Your task to perform on an android device: change the upload size in google photos Image 0: 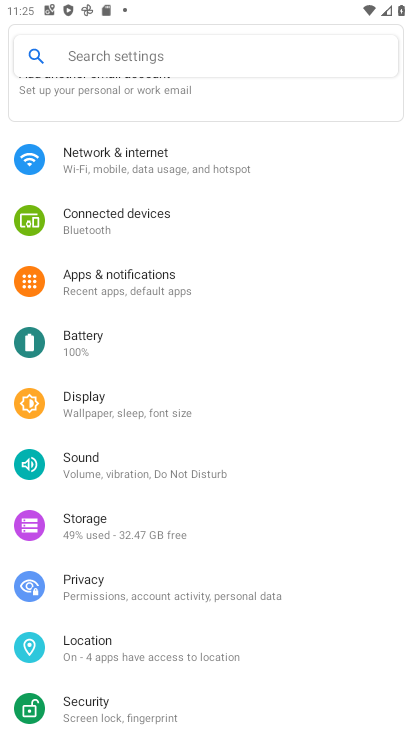
Step 0: press home button
Your task to perform on an android device: change the upload size in google photos Image 1: 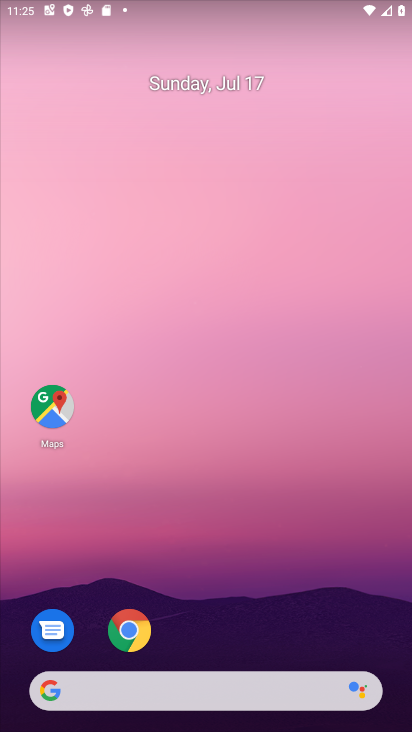
Step 1: drag from (222, 645) to (194, 129)
Your task to perform on an android device: change the upload size in google photos Image 2: 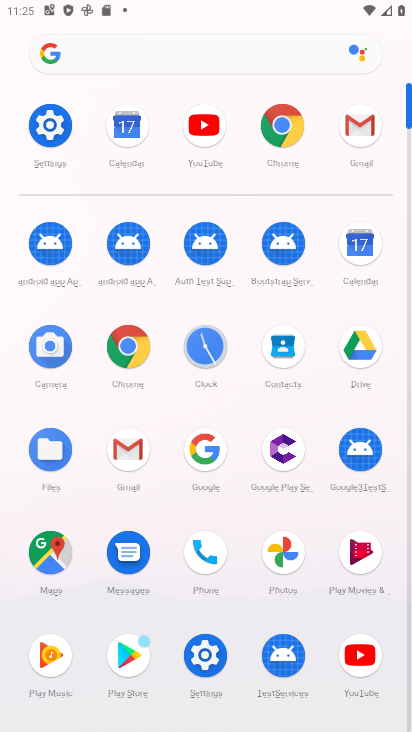
Step 2: click (279, 548)
Your task to perform on an android device: change the upload size in google photos Image 3: 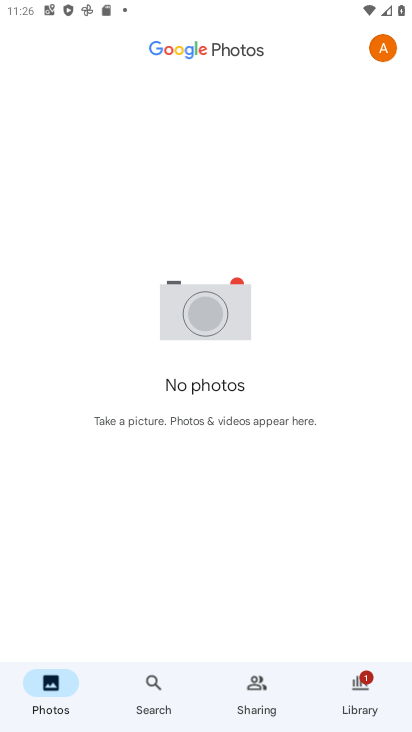
Step 3: click (384, 50)
Your task to perform on an android device: change the upload size in google photos Image 4: 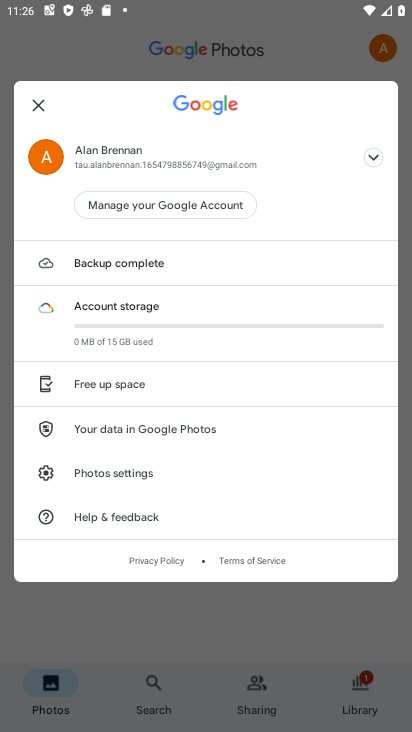
Step 4: click (183, 476)
Your task to perform on an android device: change the upload size in google photos Image 5: 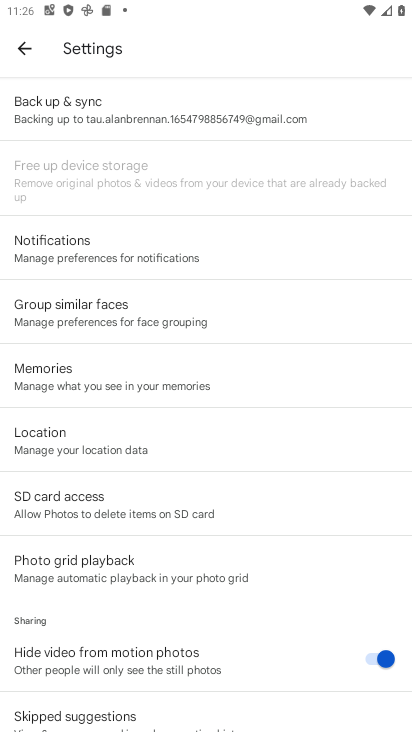
Step 5: task complete